Your task to perform on an android device: Go to Yahoo.com Image 0: 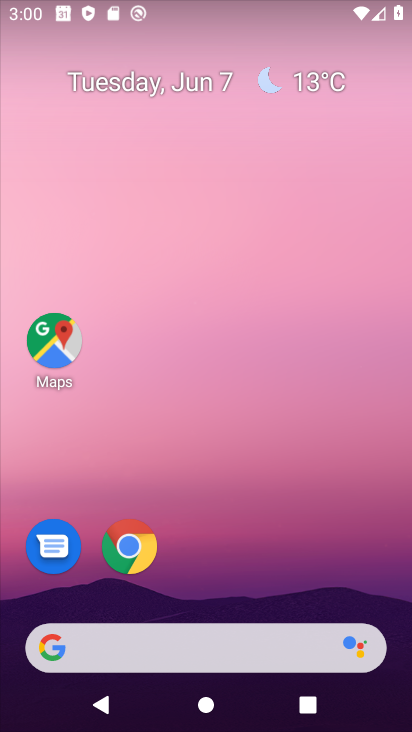
Step 0: click (137, 541)
Your task to perform on an android device: Go to Yahoo.com Image 1: 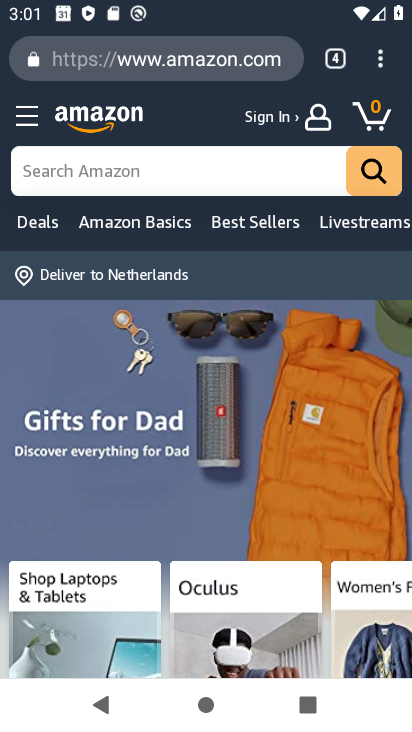
Step 1: click (341, 52)
Your task to perform on an android device: Go to Yahoo.com Image 2: 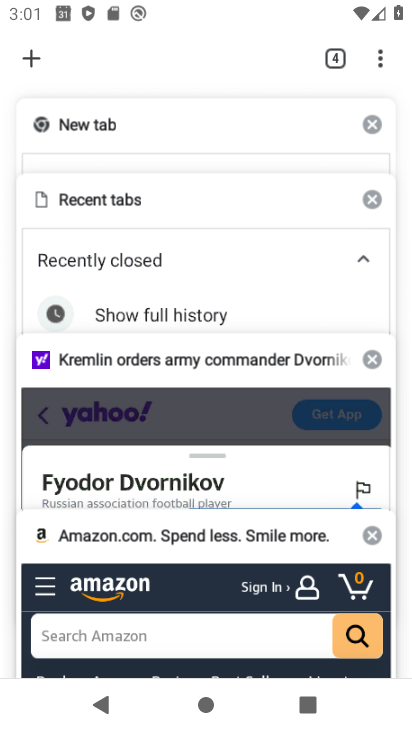
Step 2: click (146, 388)
Your task to perform on an android device: Go to Yahoo.com Image 3: 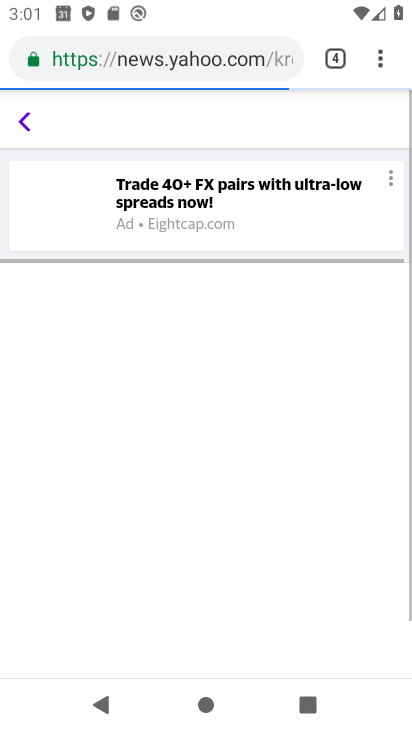
Step 3: task complete